Your task to perform on an android device: set the timer Image 0: 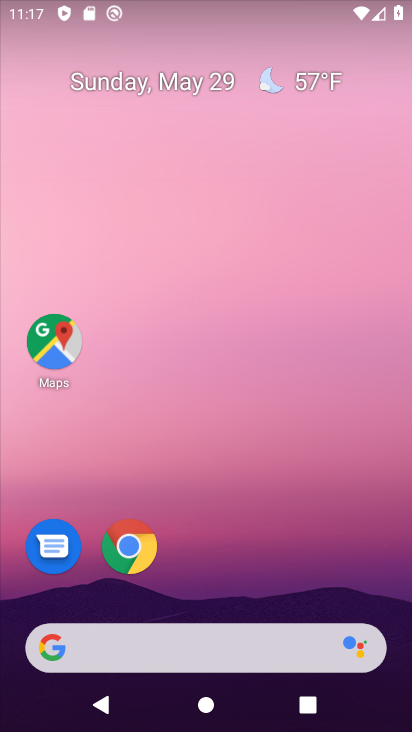
Step 0: press home button
Your task to perform on an android device: set the timer Image 1: 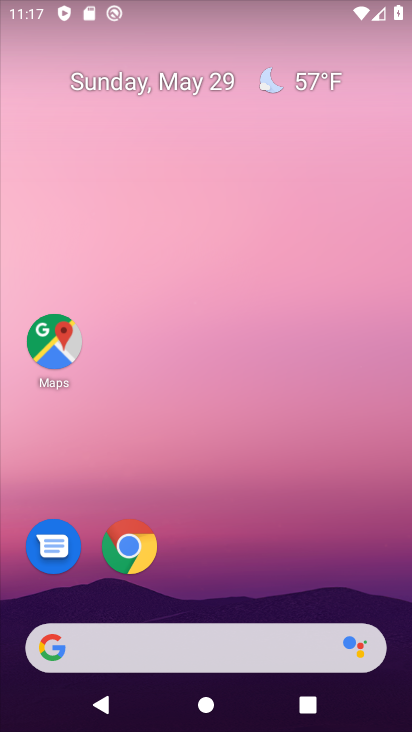
Step 1: drag from (153, 648) to (412, 94)
Your task to perform on an android device: set the timer Image 2: 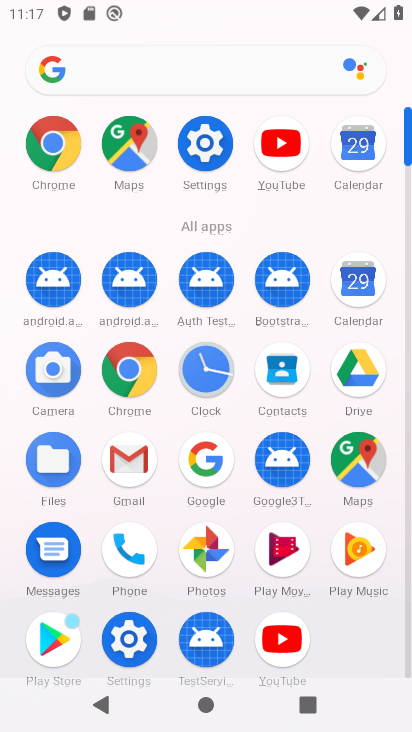
Step 2: click (211, 373)
Your task to perform on an android device: set the timer Image 3: 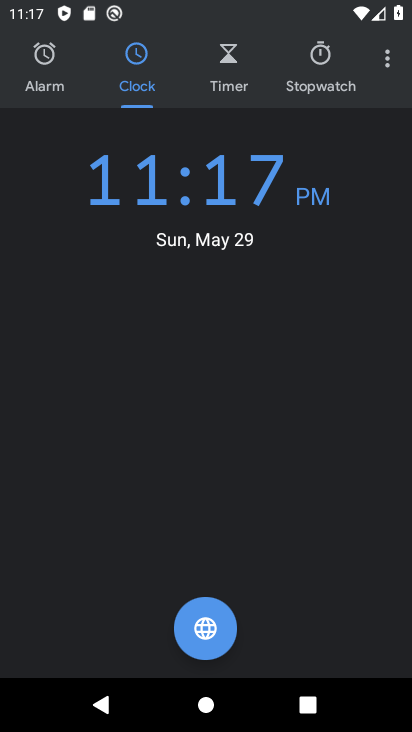
Step 3: click (228, 69)
Your task to perform on an android device: set the timer Image 4: 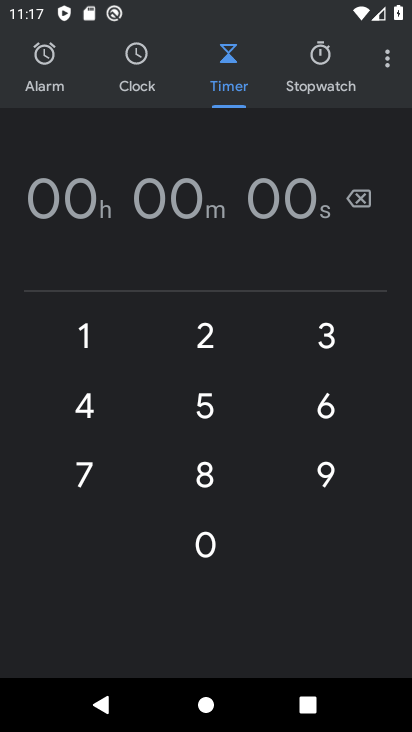
Step 4: click (80, 340)
Your task to perform on an android device: set the timer Image 5: 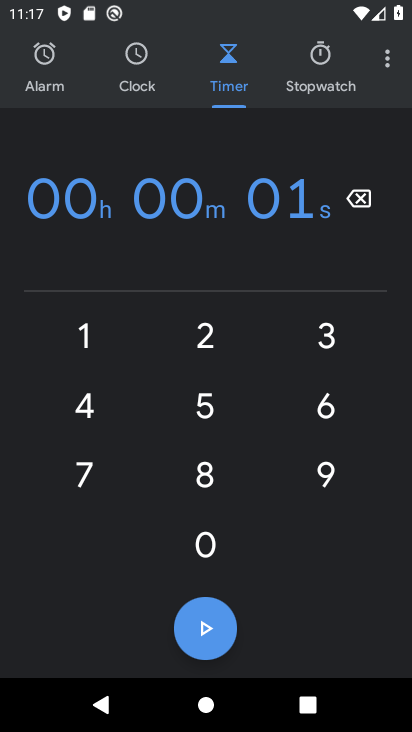
Step 5: click (323, 404)
Your task to perform on an android device: set the timer Image 6: 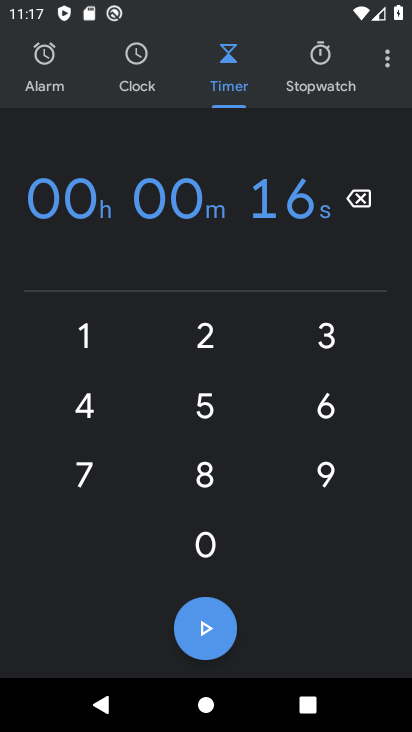
Step 6: click (210, 636)
Your task to perform on an android device: set the timer Image 7: 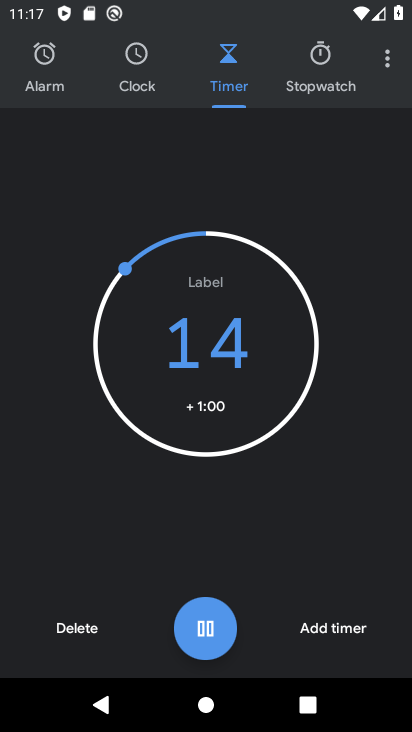
Step 7: click (206, 631)
Your task to perform on an android device: set the timer Image 8: 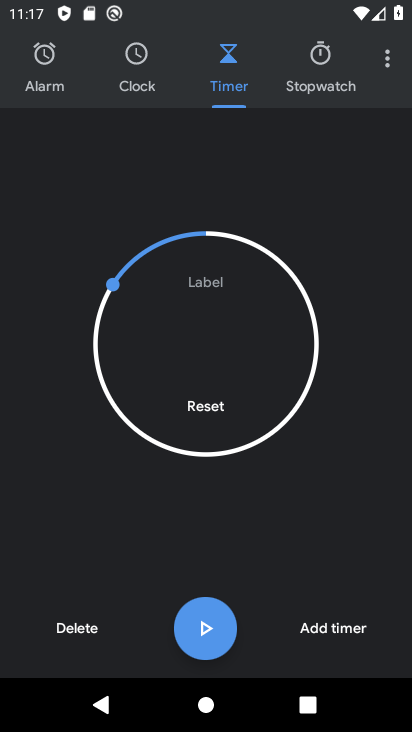
Step 8: task complete